Your task to perform on an android device: Check the weather Image 0: 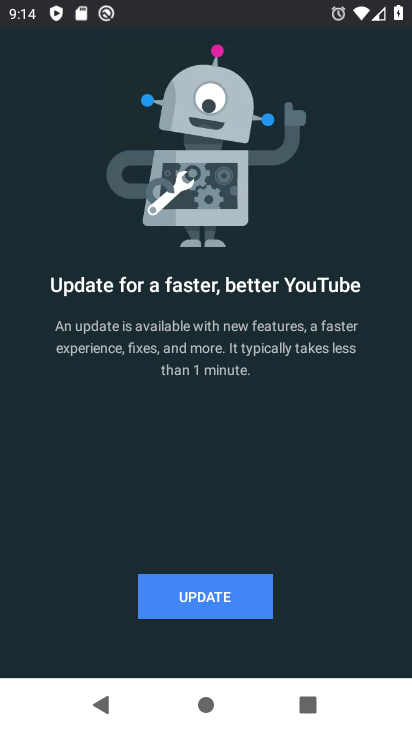
Step 0: press home button
Your task to perform on an android device: Check the weather Image 1: 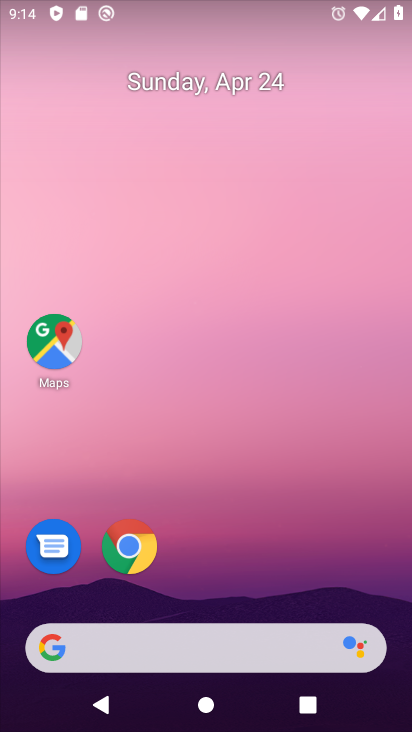
Step 1: drag from (251, 434) to (301, 138)
Your task to perform on an android device: Check the weather Image 2: 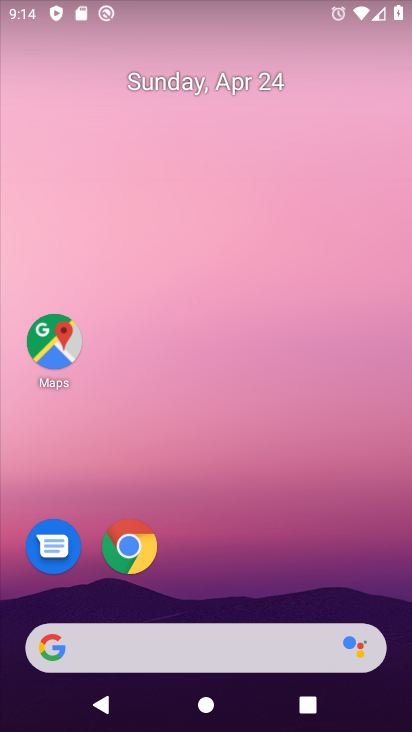
Step 2: drag from (243, 495) to (307, 153)
Your task to perform on an android device: Check the weather Image 3: 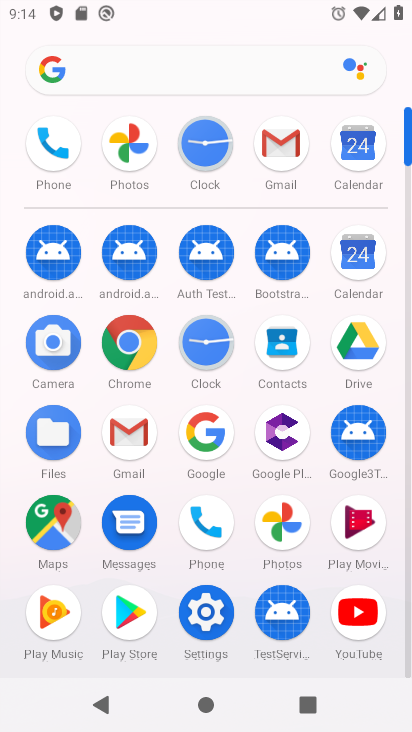
Step 3: click (199, 431)
Your task to perform on an android device: Check the weather Image 4: 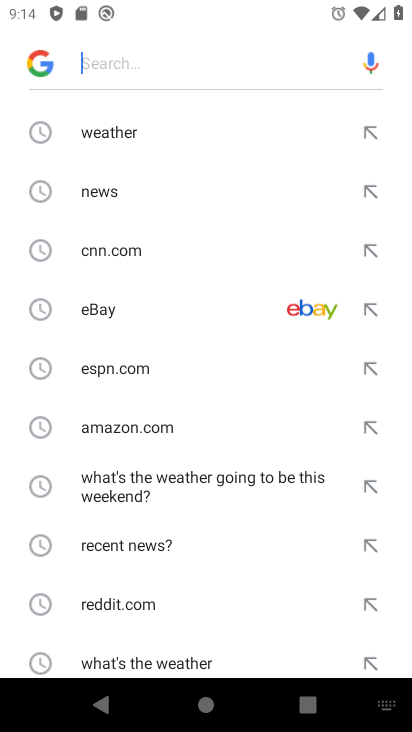
Step 4: click (129, 116)
Your task to perform on an android device: Check the weather Image 5: 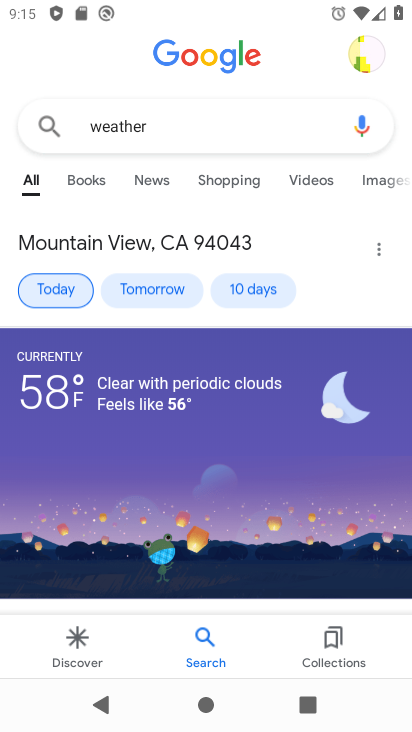
Step 5: task complete